Your task to perform on an android device: Go to sound settings Image 0: 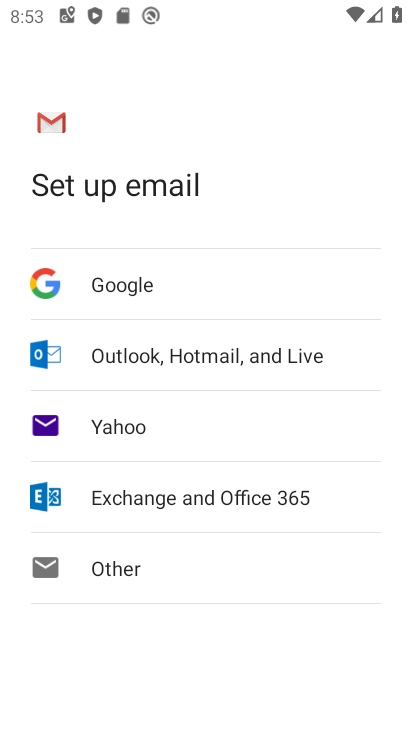
Step 0: press home button
Your task to perform on an android device: Go to sound settings Image 1: 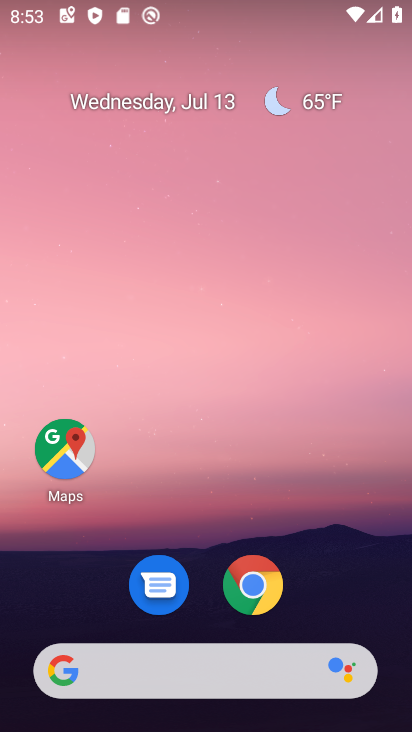
Step 1: drag from (326, 580) to (341, 53)
Your task to perform on an android device: Go to sound settings Image 2: 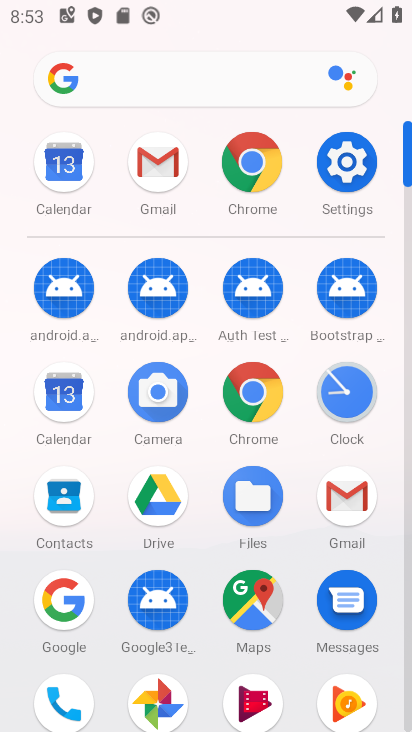
Step 2: click (345, 170)
Your task to perform on an android device: Go to sound settings Image 3: 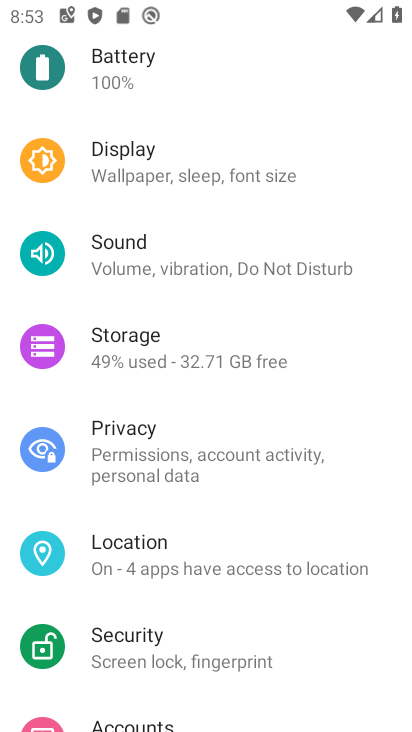
Step 3: click (293, 260)
Your task to perform on an android device: Go to sound settings Image 4: 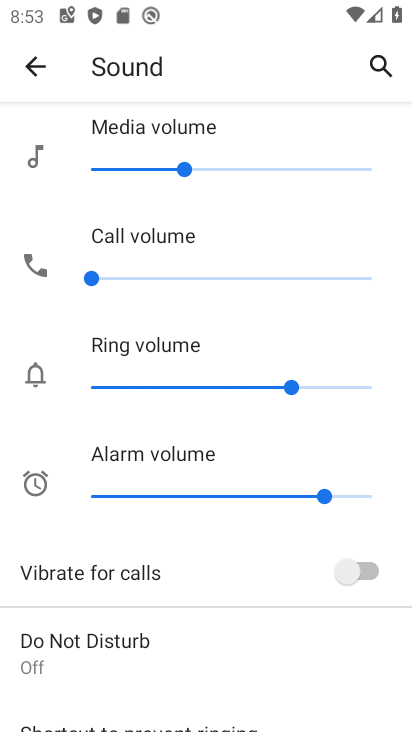
Step 4: drag from (276, 571) to (278, 13)
Your task to perform on an android device: Go to sound settings Image 5: 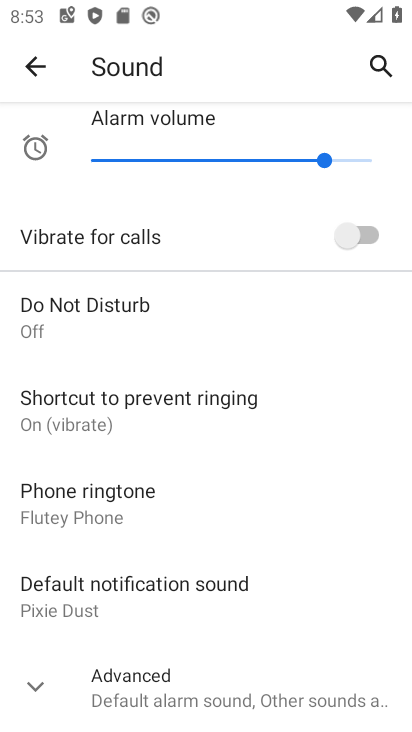
Step 5: click (35, 681)
Your task to perform on an android device: Go to sound settings Image 6: 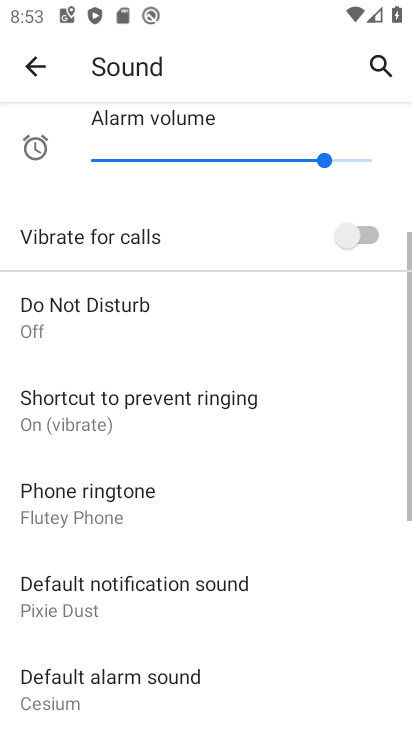
Step 6: task complete